Your task to perform on an android device: turn on the 12-hour format for clock Image 0: 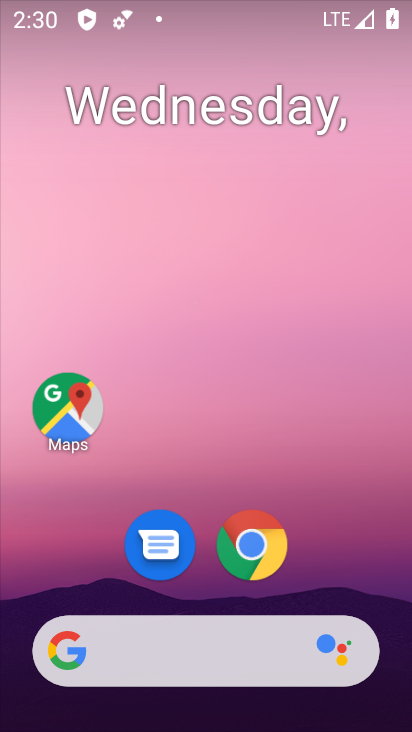
Step 0: drag from (199, 591) to (163, 11)
Your task to perform on an android device: turn on the 12-hour format for clock Image 1: 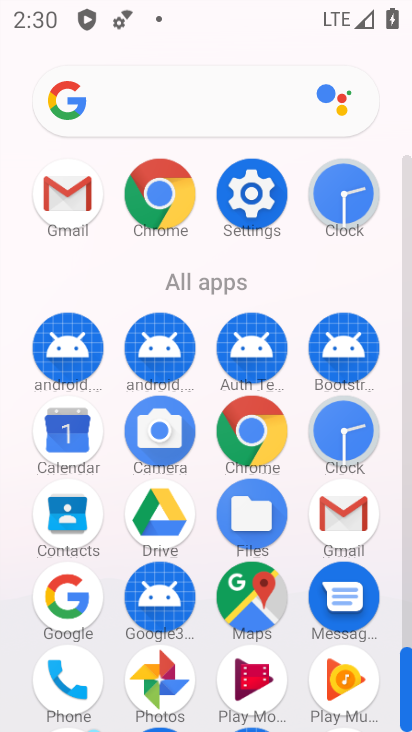
Step 1: press home button
Your task to perform on an android device: turn on the 12-hour format for clock Image 2: 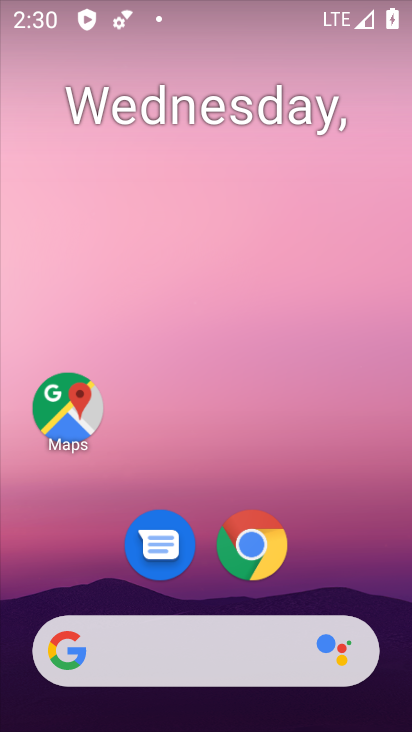
Step 2: drag from (202, 589) to (180, 163)
Your task to perform on an android device: turn on the 12-hour format for clock Image 3: 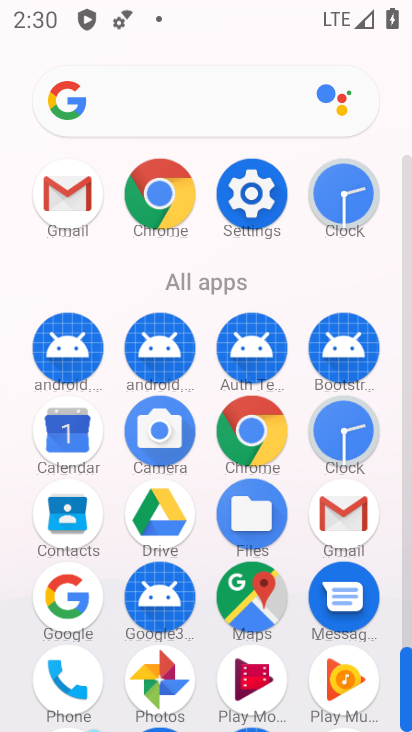
Step 3: click (338, 197)
Your task to perform on an android device: turn on the 12-hour format for clock Image 4: 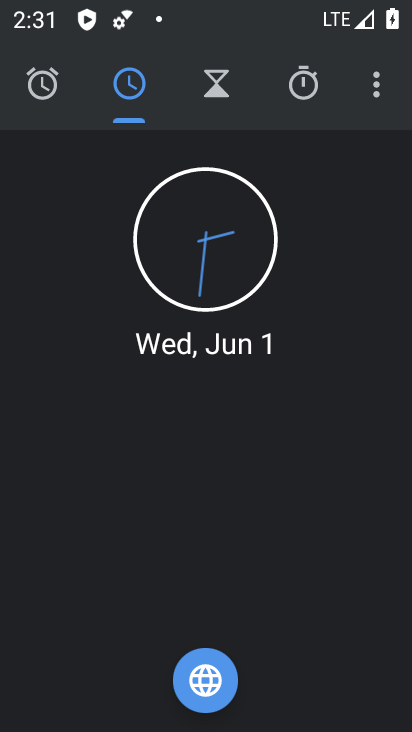
Step 4: click (379, 91)
Your task to perform on an android device: turn on the 12-hour format for clock Image 5: 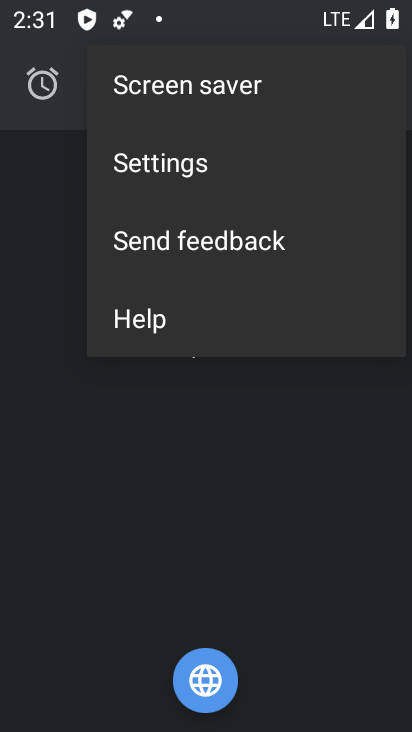
Step 5: click (192, 170)
Your task to perform on an android device: turn on the 12-hour format for clock Image 6: 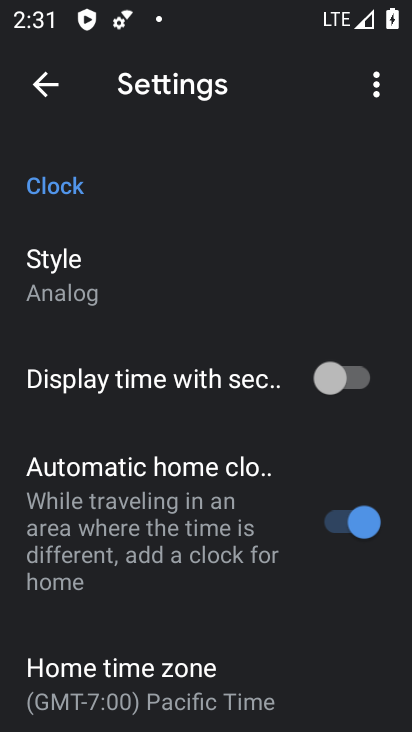
Step 6: drag from (210, 591) to (187, 354)
Your task to perform on an android device: turn on the 12-hour format for clock Image 7: 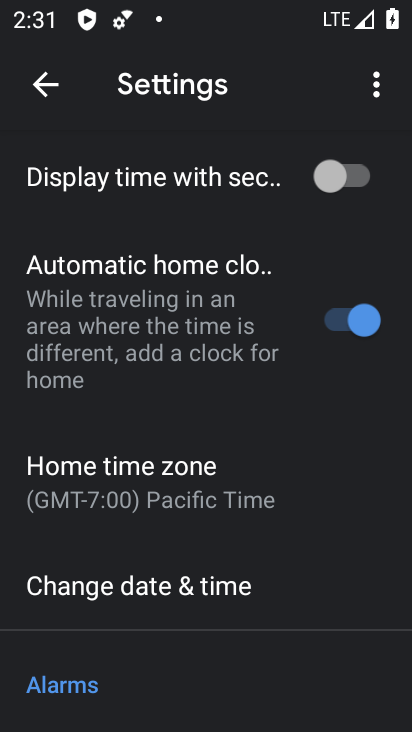
Step 7: click (149, 593)
Your task to perform on an android device: turn on the 12-hour format for clock Image 8: 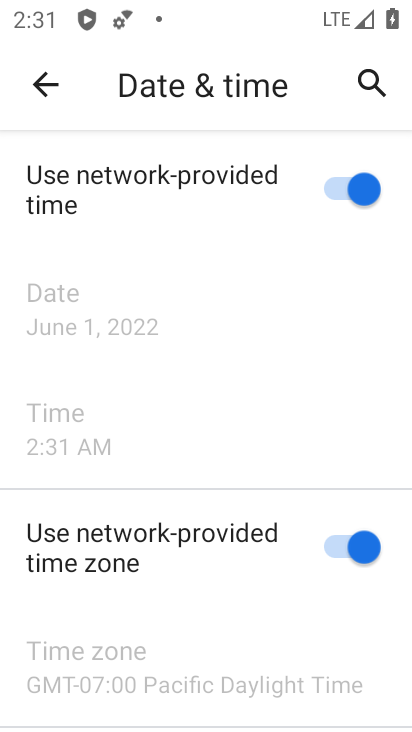
Step 8: drag from (164, 631) to (164, 296)
Your task to perform on an android device: turn on the 12-hour format for clock Image 9: 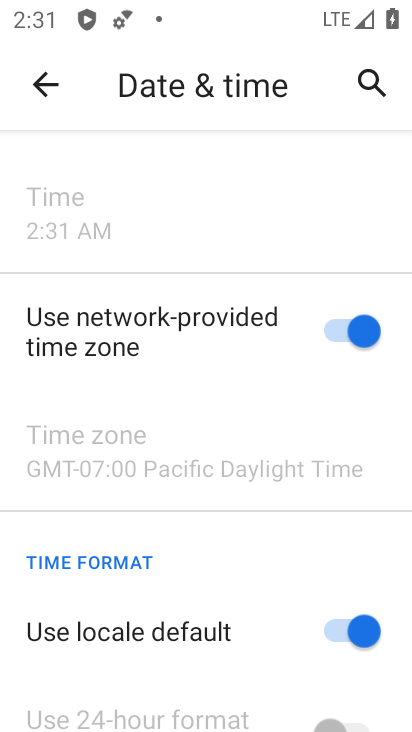
Step 9: drag from (237, 647) to (233, 404)
Your task to perform on an android device: turn on the 12-hour format for clock Image 10: 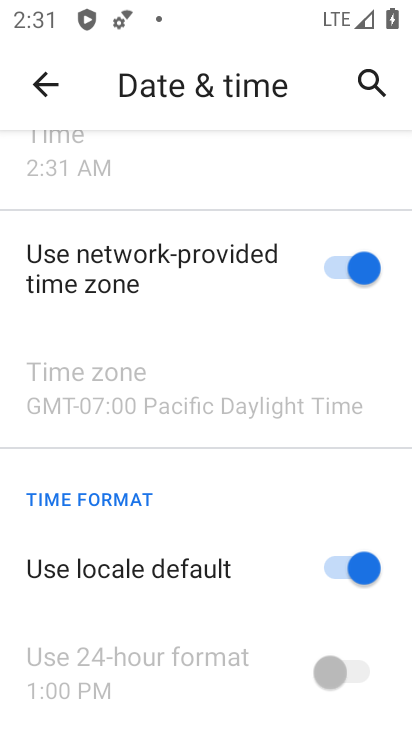
Step 10: click (366, 678)
Your task to perform on an android device: turn on the 12-hour format for clock Image 11: 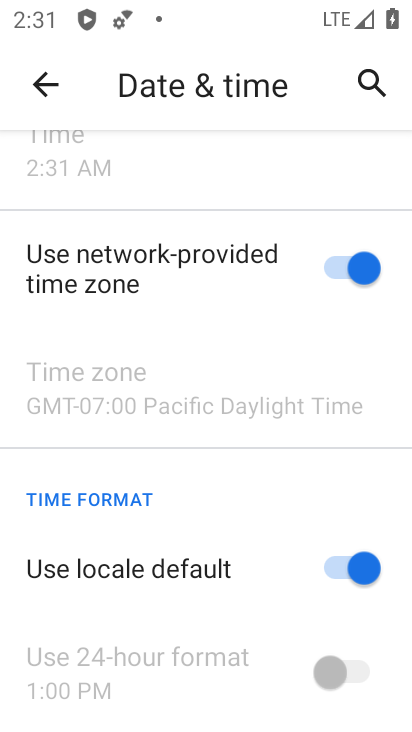
Step 11: click (358, 673)
Your task to perform on an android device: turn on the 12-hour format for clock Image 12: 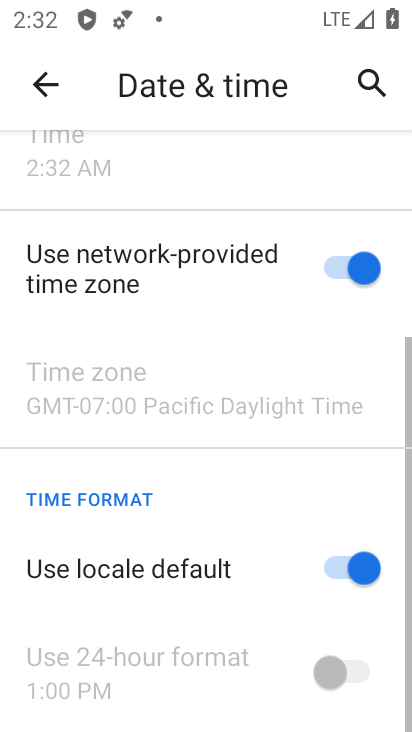
Step 12: click (353, 671)
Your task to perform on an android device: turn on the 12-hour format for clock Image 13: 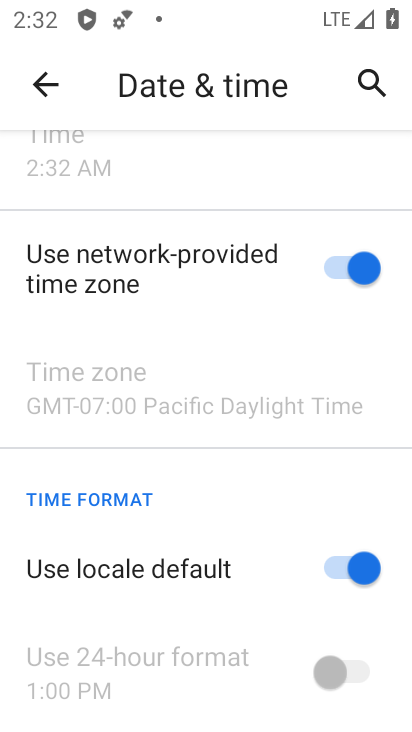
Step 13: click (331, 580)
Your task to perform on an android device: turn on the 12-hour format for clock Image 14: 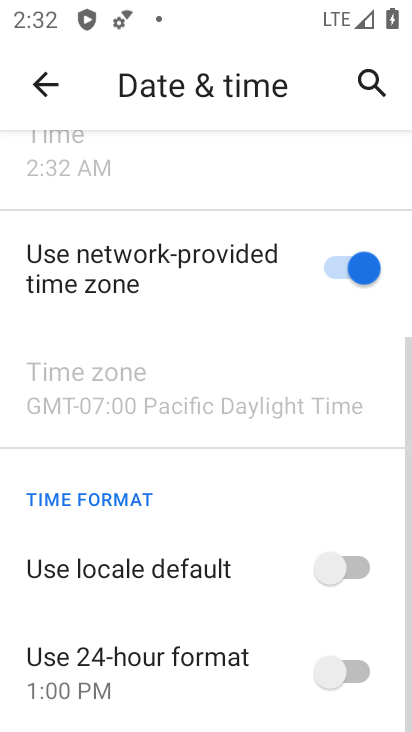
Step 14: click (365, 667)
Your task to perform on an android device: turn on the 12-hour format for clock Image 15: 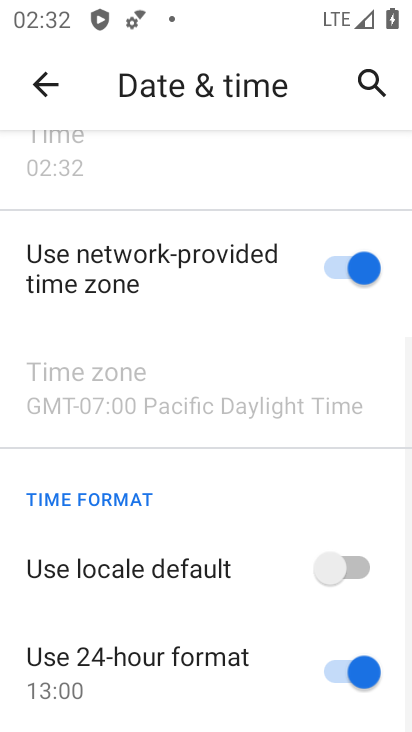
Step 15: task complete